Your task to perform on an android device: find which apps use the phone's location Image 0: 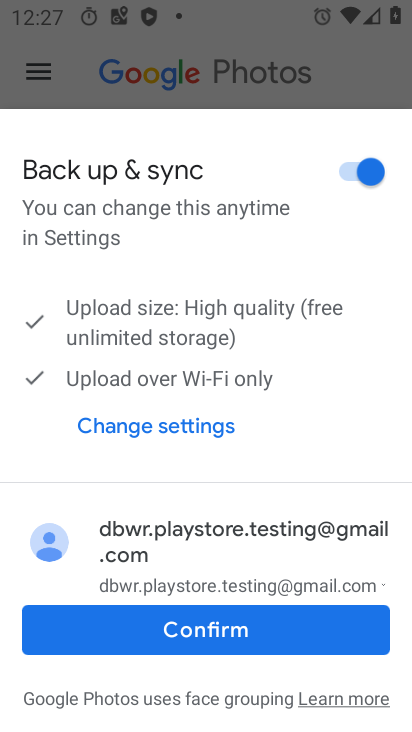
Step 0: press home button
Your task to perform on an android device: find which apps use the phone's location Image 1: 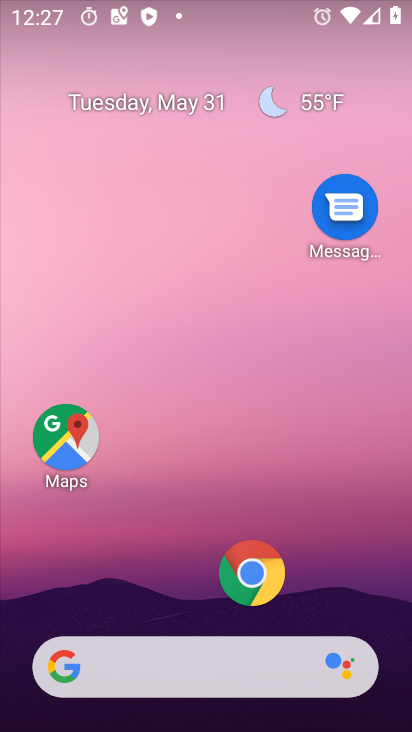
Step 1: drag from (172, 588) to (200, 9)
Your task to perform on an android device: find which apps use the phone's location Image 2: 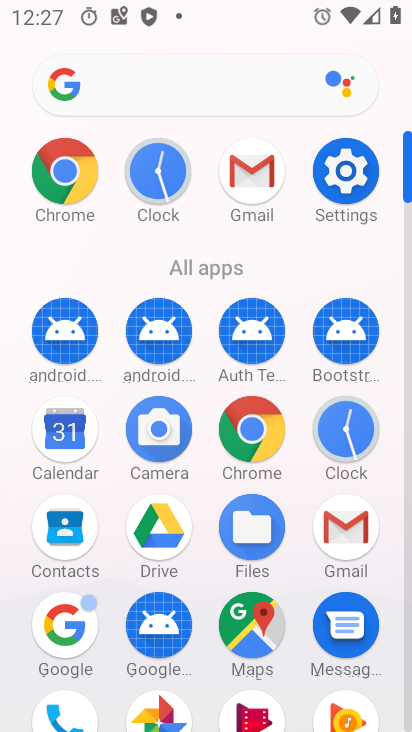
Step 2: click (339, 169)
Your task to perform on an android device: find which apps use the phone's location Image 3: 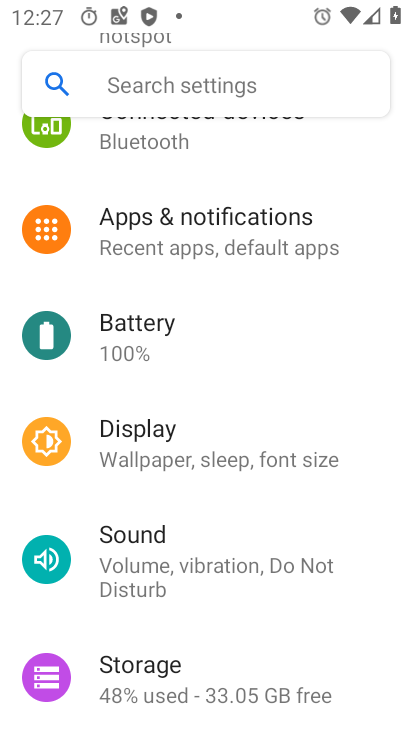
Step 3: drag from (174, 590) to (180, 244)
Your task to perform on an android device: find which apps use the phone's location Image 4: 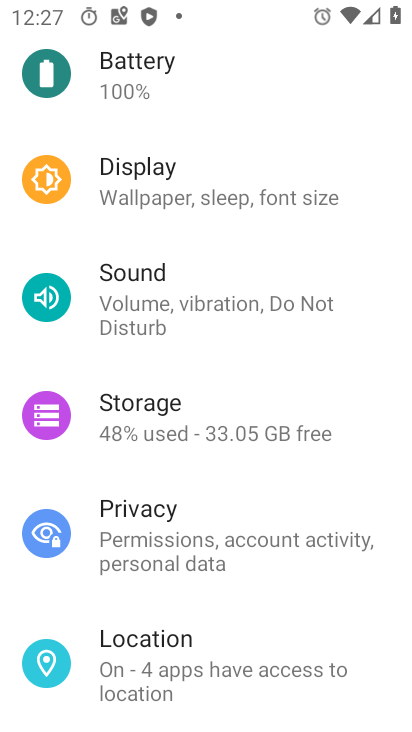
Step 4: click (141, 664)
Your task to perform on an android device: find which apps use the phone's location Image 5: 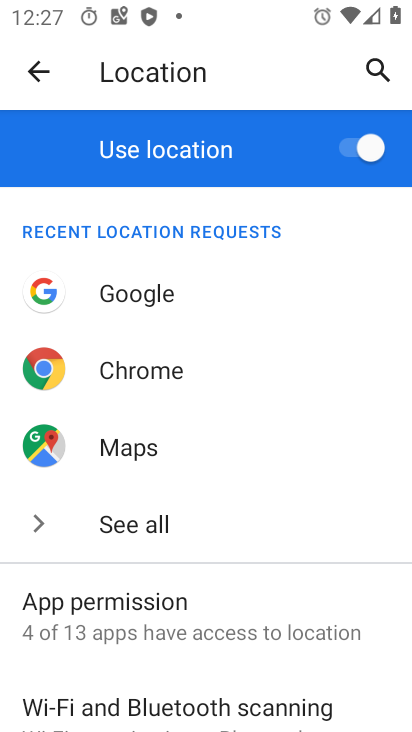
Step 5: drag from (170, 654) to (240, 381)
Your task to perform on an android device: find which apps use the phone's location Image 6: 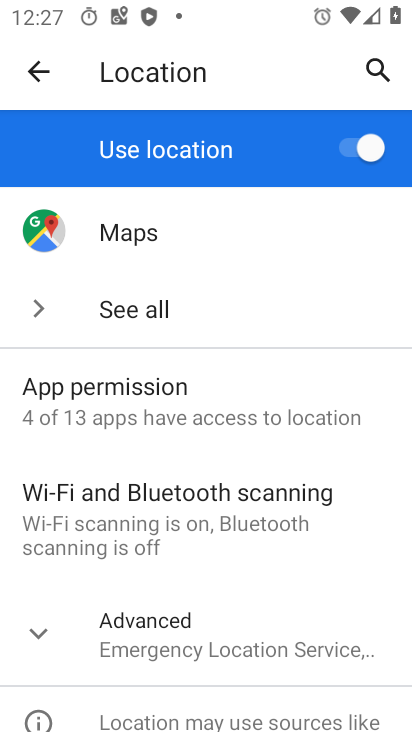
Step 6: click (178, 412)
Your task to perform on an android device: find which apps use the phone's location Image 7: 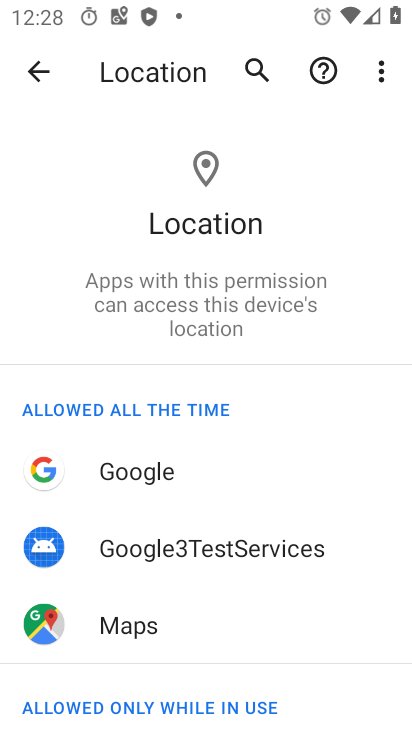
Step 7: task complete